Your task to perform on an android device: Go to Yahoo.com Image 0: 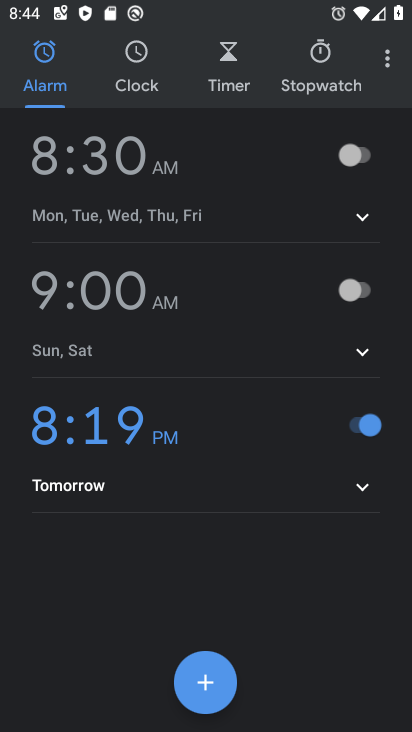
Step 0: press home button
Your task to perform on an android device: Go to Yahoo.com Image 1: 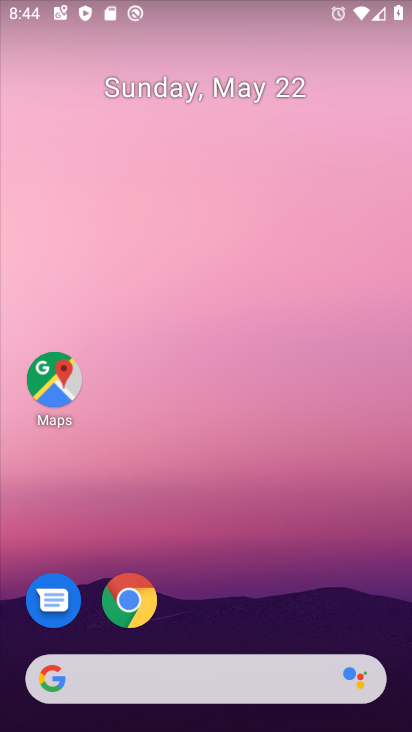
Step 1: click (126, 608)
Your task to perform on an android device: Go to Yahoo.com Image 2: 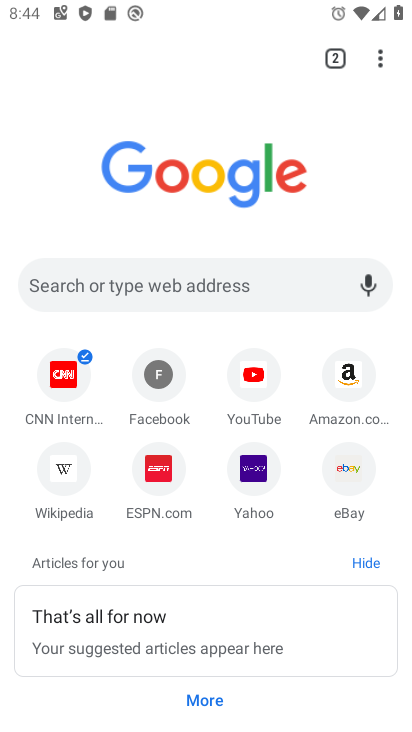
Step 2: click (245, 463)
Your task to perform on an android device: Go to Yahoo.com Image 3: 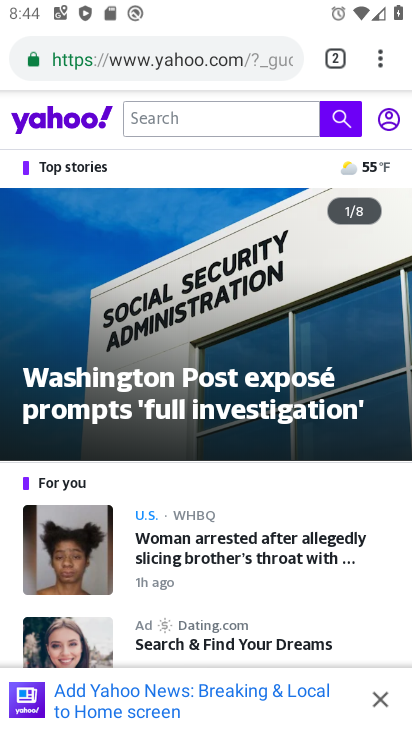
Step 3: task complete